Your task to perform on an android device: open chrome privacy settings Image 0: 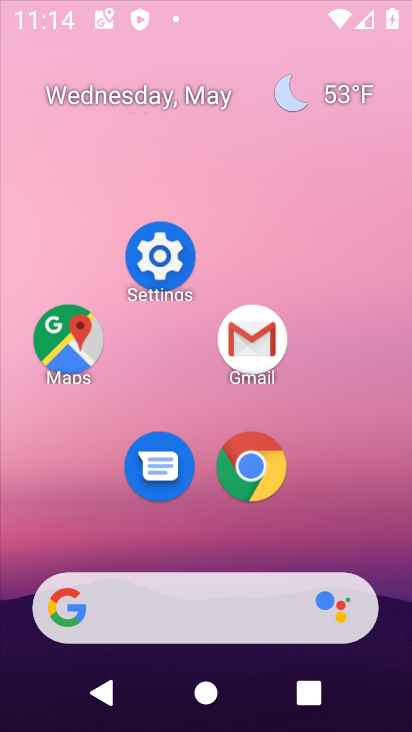
Step 0: drag from (216, 512) to (297, 150)
Your task to perform on an android device: open chrome privacy settings Image 1: 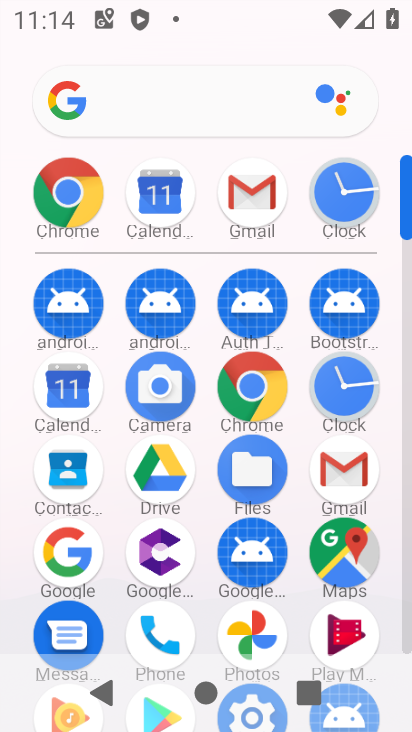
Step 1: drag from (202, 552) to (219, 224)
Your task to perform on an android device: open chrome privacy settings Image 2: 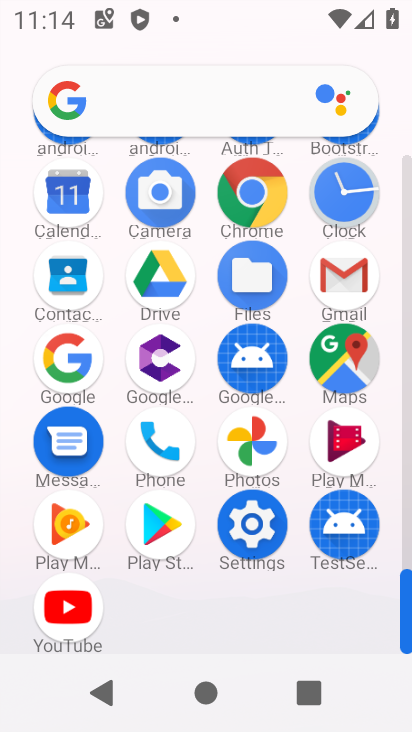
Step 2: click (254, 189)
Your task to perform on an android device: open chrome privacy settings Image 3: 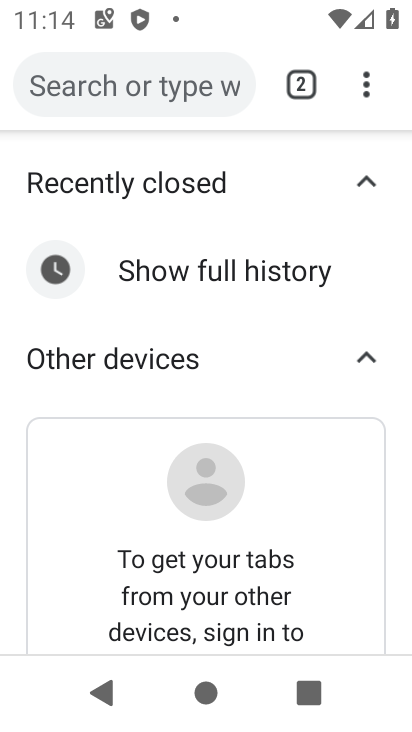
Step 3: click (372, 83)
Your task to perform on an android device: open chrome privacy settings Image 4: 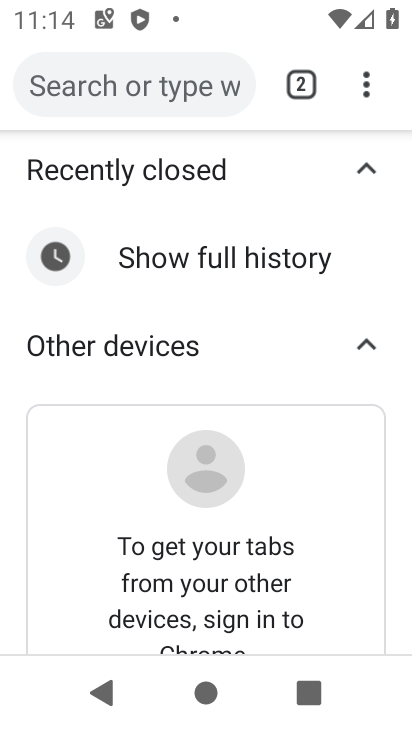
Step 4: drag from (364, 71) to (147, 526)
Your task to perform on an android device: open chrome privacy settings Image 5: 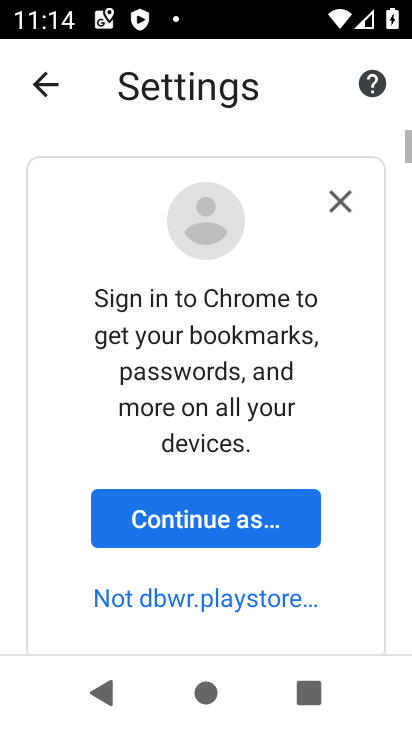
Step 5: drag from (243, 545) to (321, 227)
Your task to perform on an android device: open chrome privacy settings Image 6: 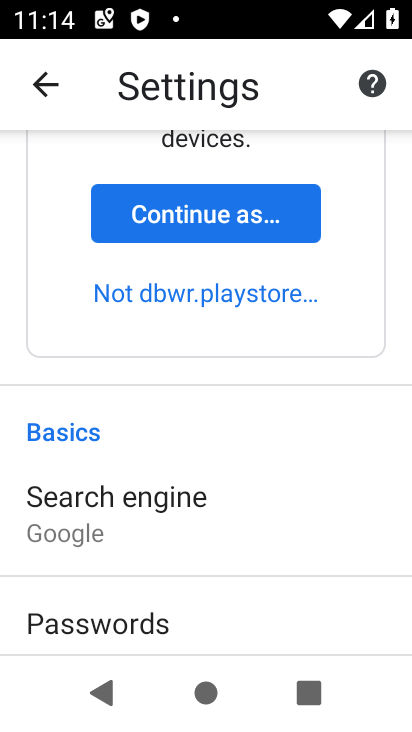
Step 6: drag from (163, 589) to (287, 244)
Your task to perform on an android device: open chrome privacy settings Image 7: 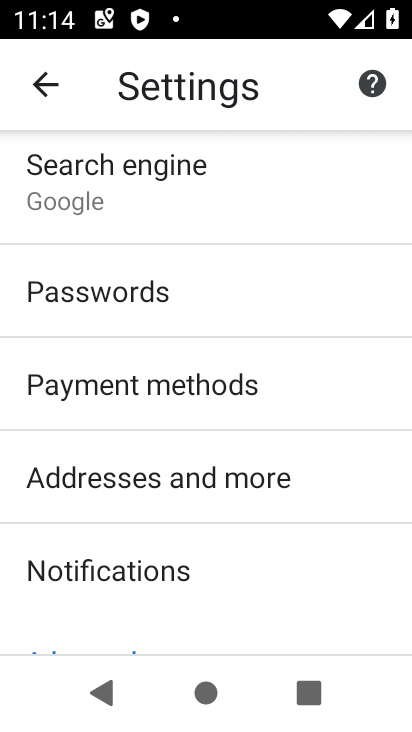
Step 7: drag from (248, 570) to (248, 374)
Your task to perform on an android device: open chrome privacy settings Image 8: 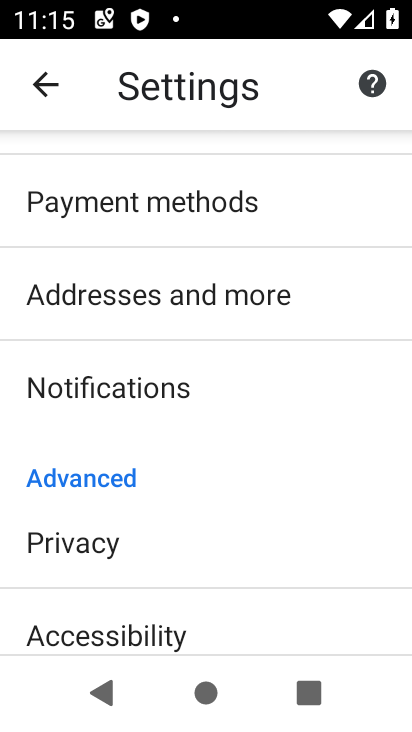
Step 8: click (112, 543)
Your task to perform on an android device: open chrome privacy settings Image 9: 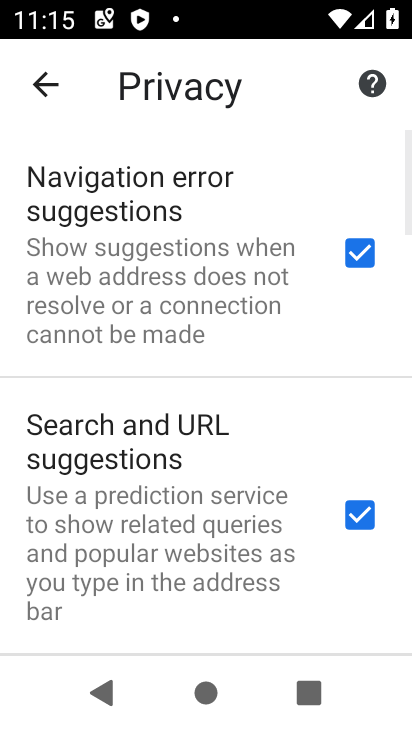
Step 9: task complete